Your task to perform on an android device: Search for seafood restaurants on Google Maps Image 0: 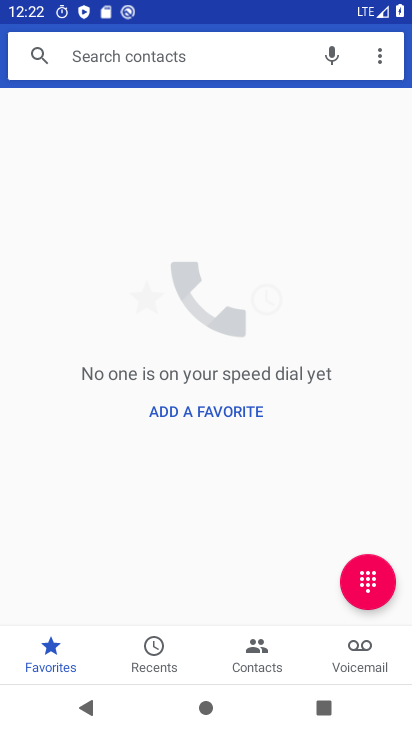
Step 0: press home button
Your task to perform on an android device: Search for seafood restaurants on Google Maps Image 1: 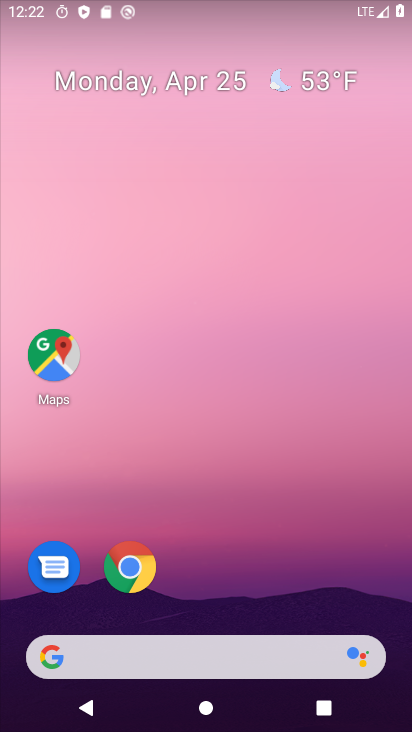
Step 1: click (48, 358)
Your task to perform on an android device: Search for seafood restaurants on Google Maps Image 2: 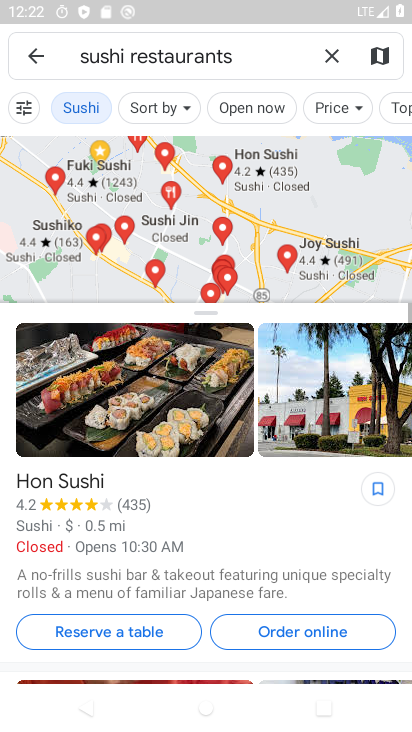
Step 2: click (330, 53)
Your task to perform on an android device: Search for seafood restaurants on Google Maps Image 3: 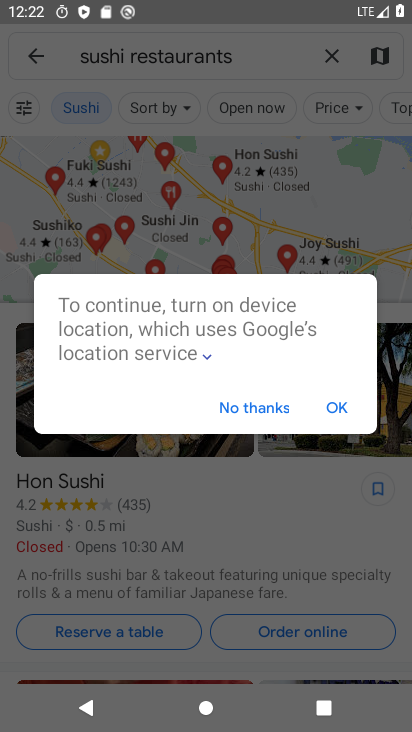
Step 3: click (330, 53)
Your task to perform on an android device: Search for seafood restaurants on Google Maps Image 4: 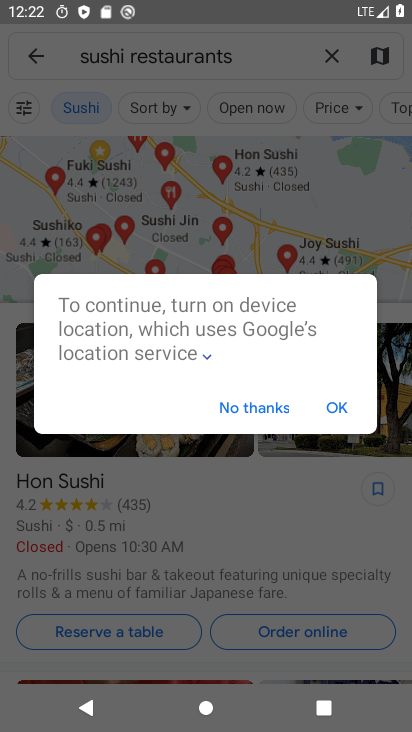
Step 4: click (269, 405)
Your task to perform on an android device: Search for seafood restaurants on Google Maps Image 5: 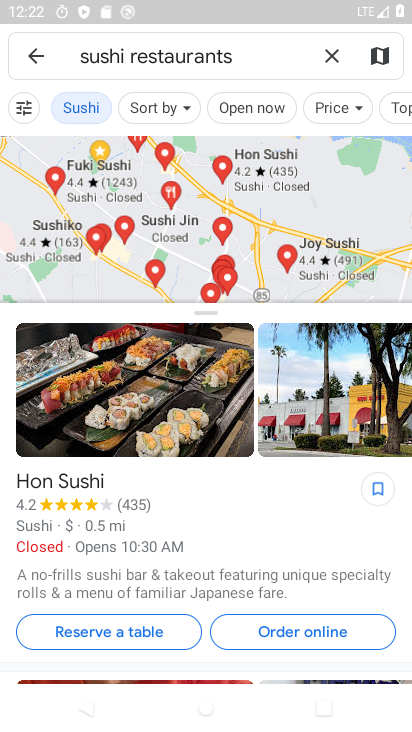
Step 5: click (325, 55)
Your task to perform on an android device: Search for seafood restaurants on Google Maps Image 6: 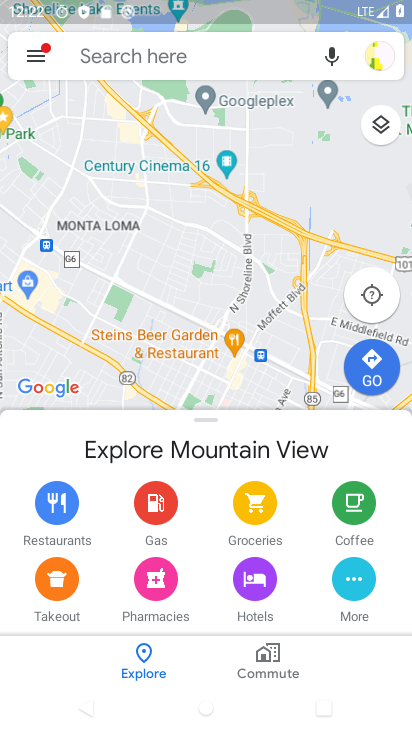
Step 6: click (226, 50)
Your task to perform on an android device: Search for seafood restaurants on Google Maps Image 7: 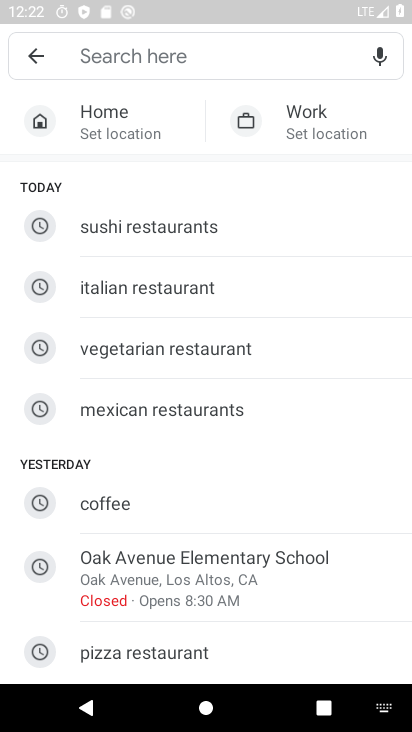
Step 7: type "seafood restaurants"
Your task to perform on an android device: Search for seafood restaurants on Google Maps Image 8: 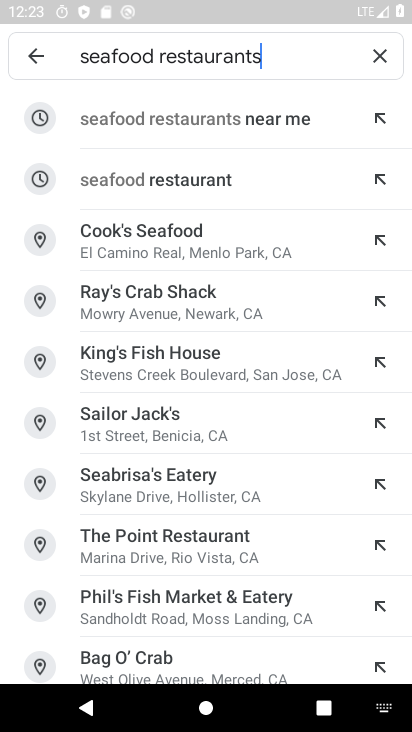
Step 8: click (184, 163)
Your task to perform on an android device: Search for seafood restaurants on Google Maps Image 9: 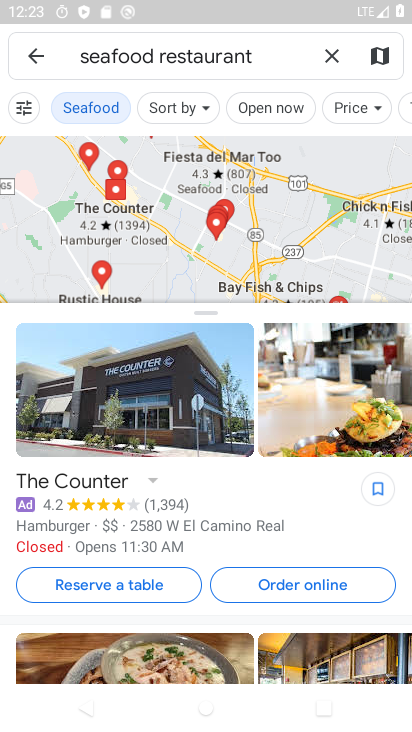
Step 9: task complete